Your task to perform on an android device: check data usage Image 0: 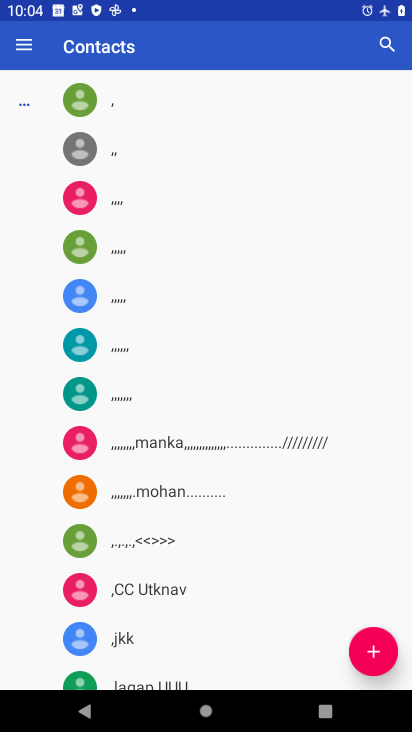
Step 0: press home button
Your task to perform on an android device: check data usage Image 1: 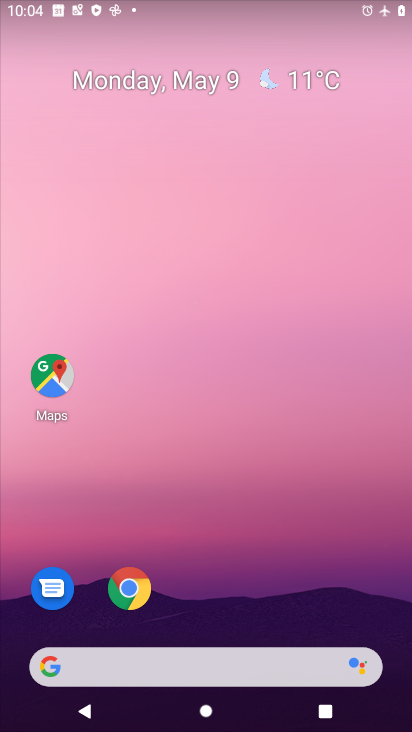
Step 1: drag from (345, 610) to (301, 108)
Your task to perform on an android device: check data usage Image 2: 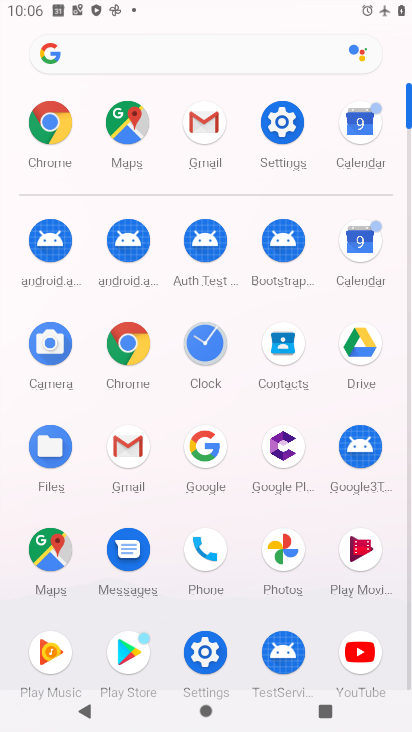
Step 2: click (201, 673)
Your task to perform on an android device: check data usage Image 3: 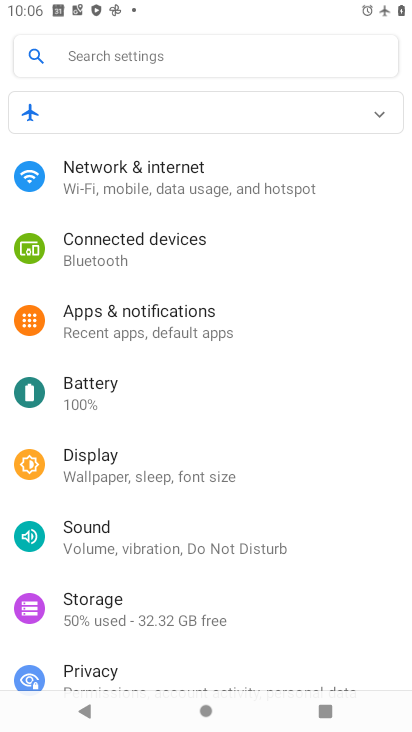
Step 3: click (169, 174)
Your task to perform on an android device: check data usage Image 4: 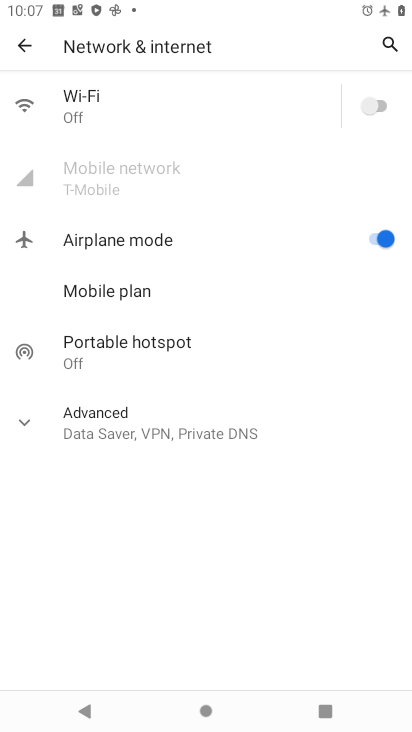
Step 4: task complete